Your task to perform on an android device: check android version Image 0: 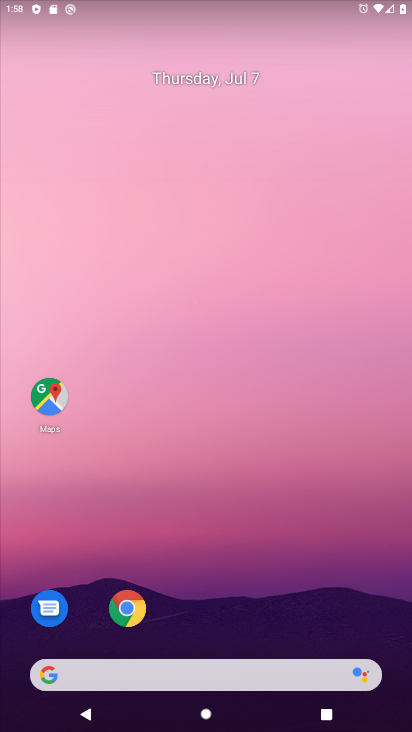
Step 0: drag from (238, 726) to (187, 135)
Your task to perform on an android device: check android version Image 1: 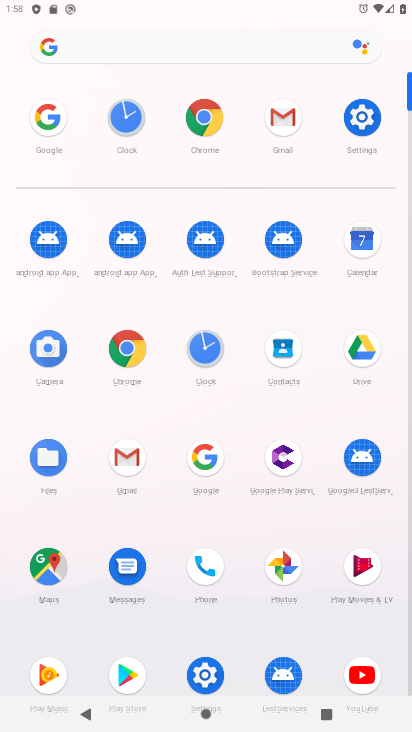
Step 1: click (202, 670)
Your task to perform on an android device: check android version Image 2: 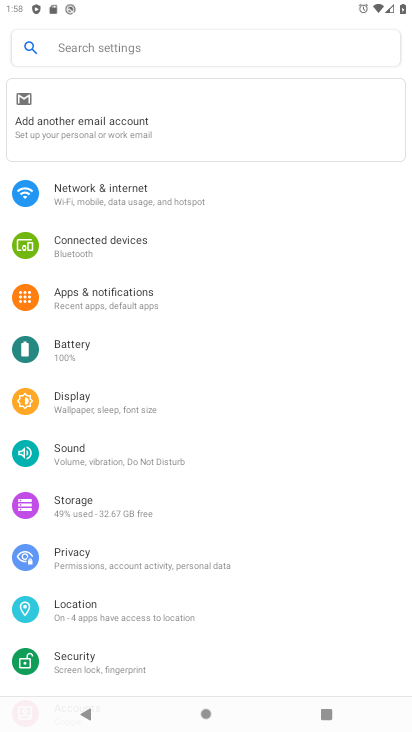
Step 2: drag from (288, 670) to (288, 269)
Your task to perform on an android device: check android version Image 3: 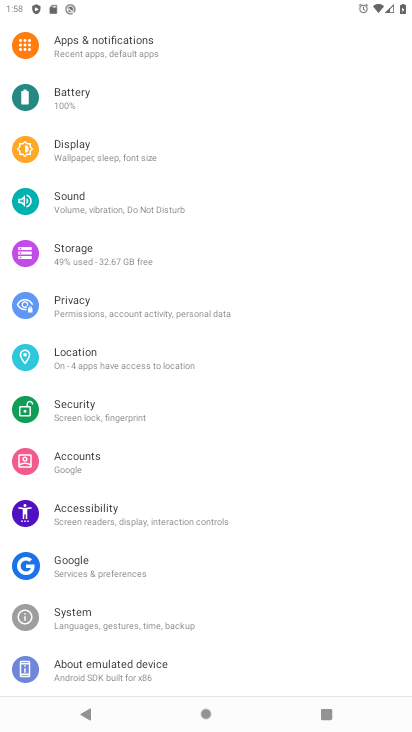
Step 3: click (147, 669)
Your task to perform on an android device: check android version Image 4: 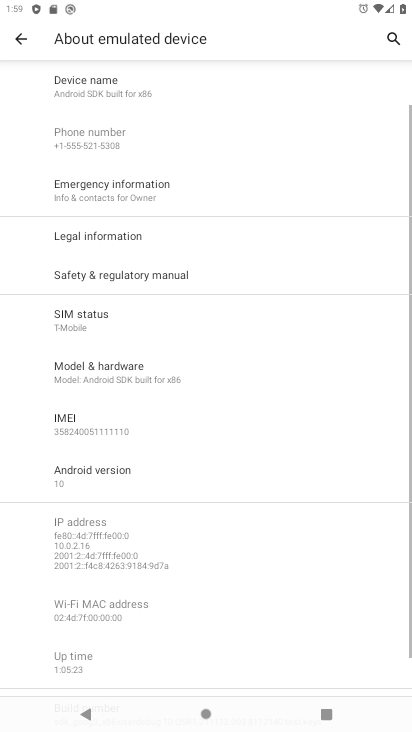
Step 4: click (107, 467)
Your task to perform on an android device: check android version Image 5: 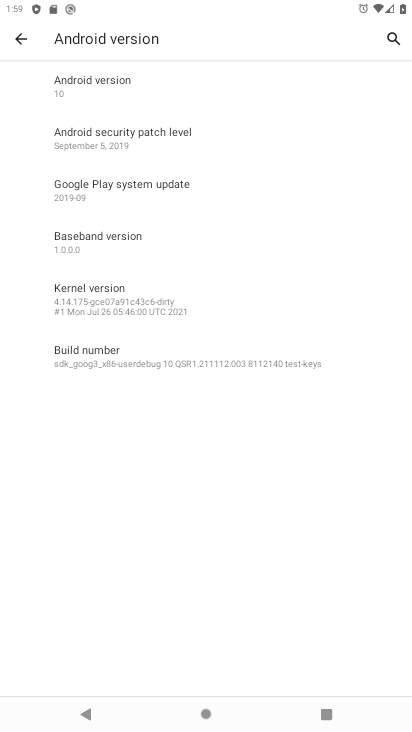
Step 5: task complete